Your task to perform on an android device: Go to Reddit.com Image 0: 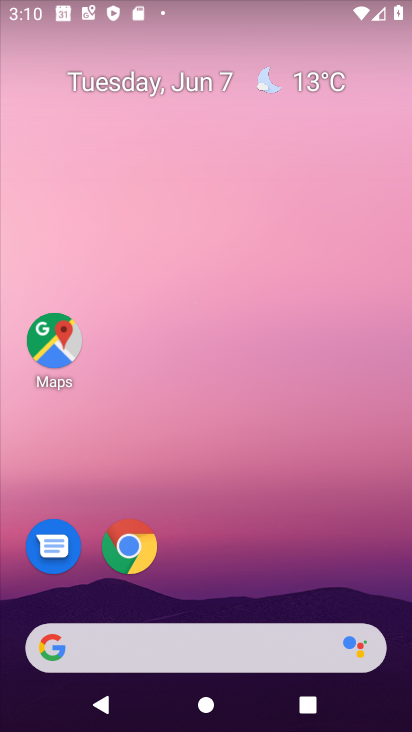
Step 0: click (170, 660)
Your task to perform on an android device: Go to Reddit.com Image 1: 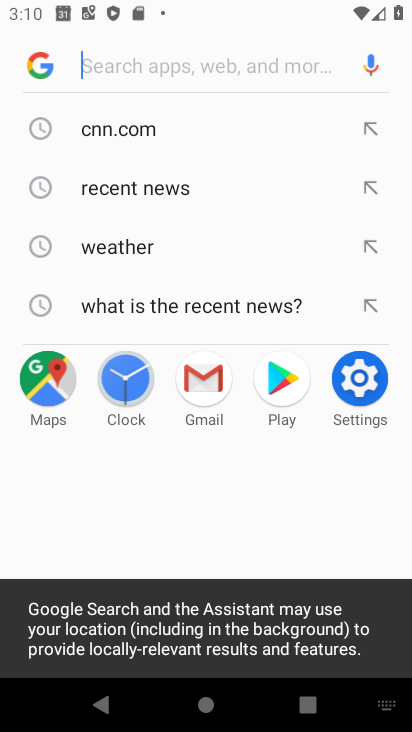
Step 1: click (138, 72)
Your task to perform on an android device: Go to Reddit.com Image 2: 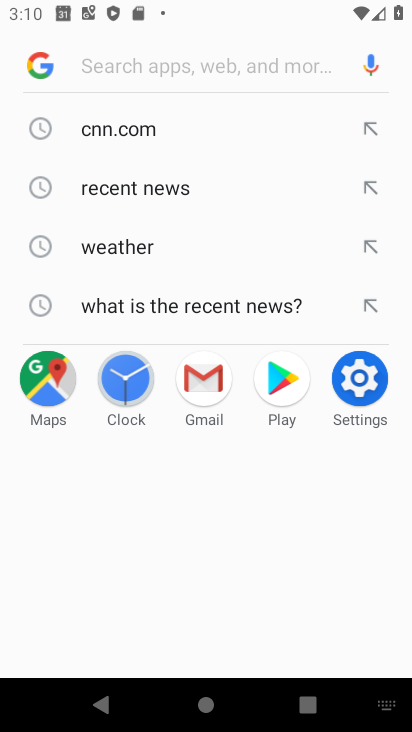
Step 2: type "Reddit.com"
Your task to perform on an android device: Go to Reddit.com Image 3: 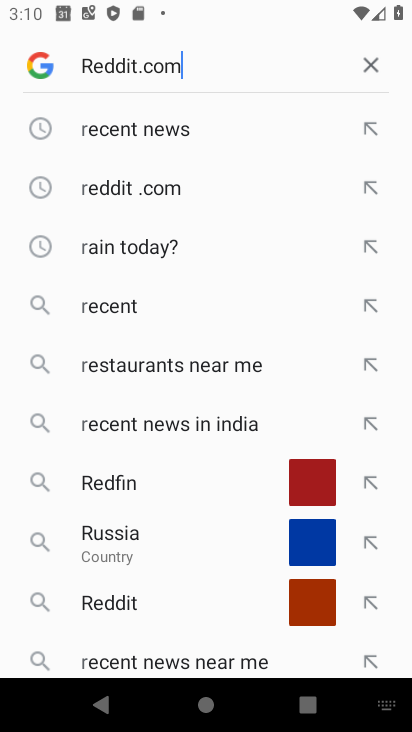
Step 3: type ""
Your task to perform on an android device: Go to Reddit.com Image 4: 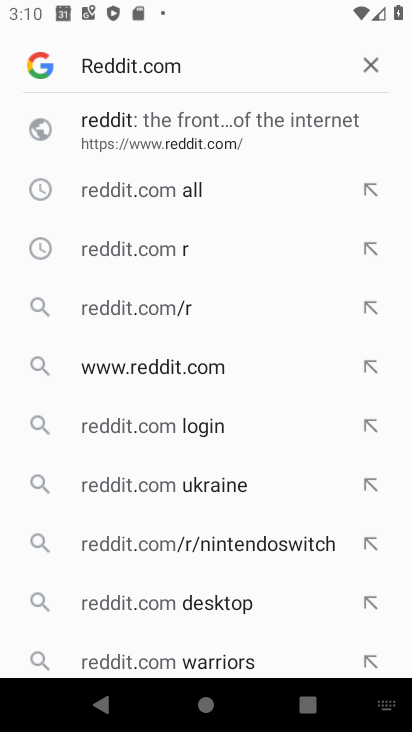
Step 4: click (138, 132)
Your task to perform on an android device: Go to Reddit.com Image 5: 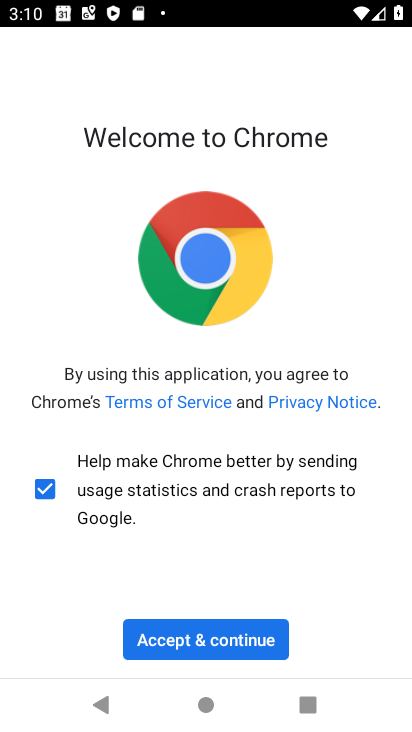
Step 5: click (238, 640)
Your task to perform on an android device: Go to Reddit.com Image 6: 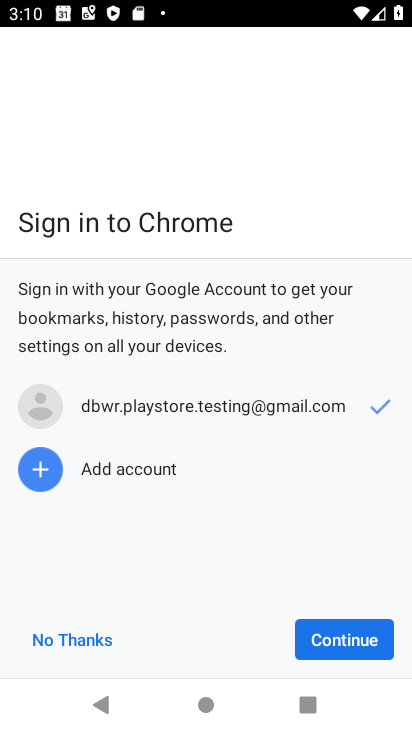
Step 6: click (73, 631)
Your task to perform on an android device: Go to Reddit.com Image 7: 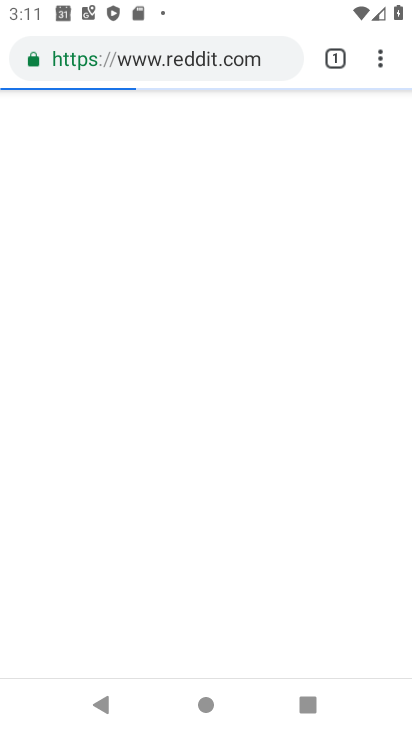
Step 7: task complete